Your task to perform on an android device: Go to location settings Image 0: 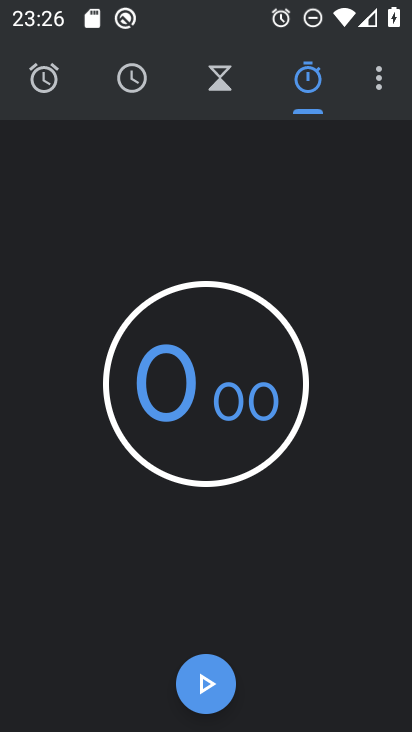
Step 0: press home button
Your task to perform on an android device: Go to location settings Image 1: 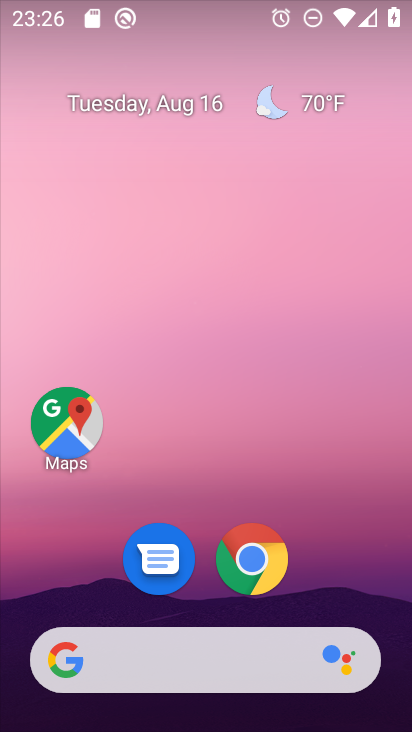
Step 1: drag from (161, 677) to (196, 83)
Your task to perform on an android device: Go to location settings Image 2: 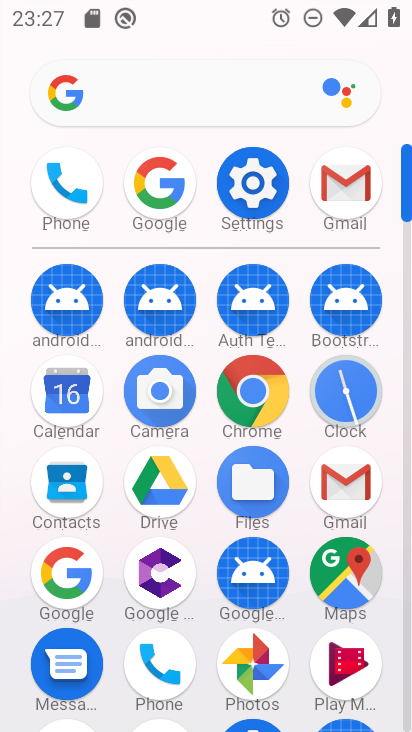
Step 2: click (252, 183)
Your task to perform on an android device: Go to location settings Image 3: 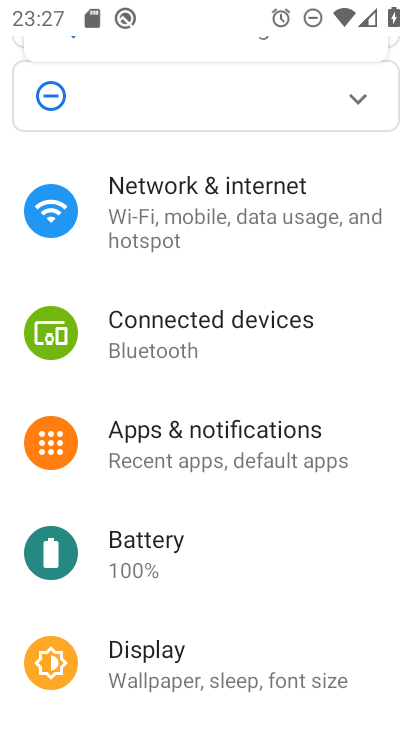
Step 3: drag from (176, 543) to (267, 424)
Your task to perform on an android device: Go to location settings Image 4: 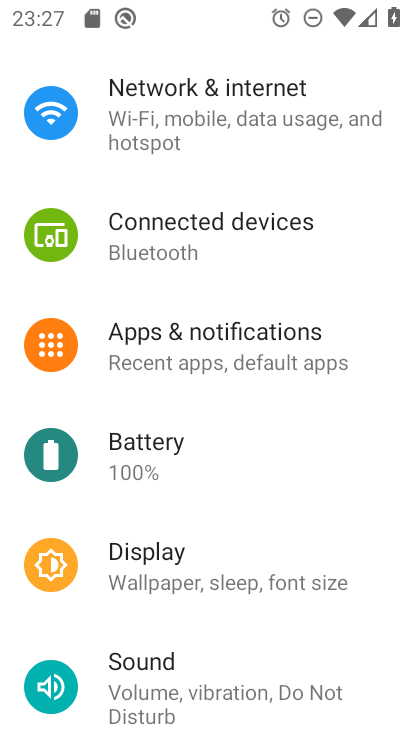
Step 4: drag from (245, 650) to (348, 516)
Your task to perform on an android device: Go to location settings Image 5: 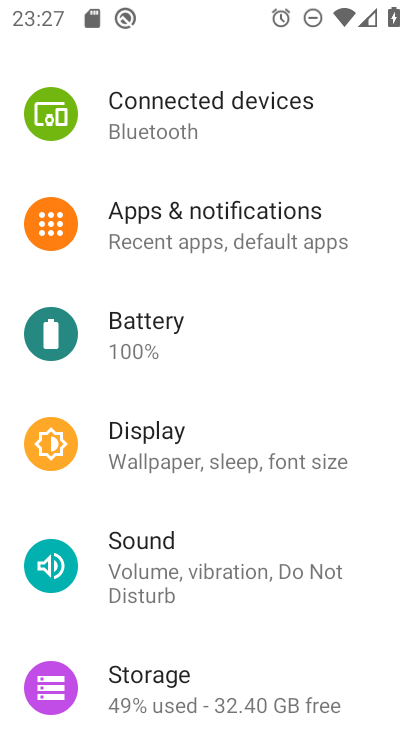
Step 5: drag from (237, 667) to (329, 523)
Your task to perform on an android device: Go to location settings Image 6: 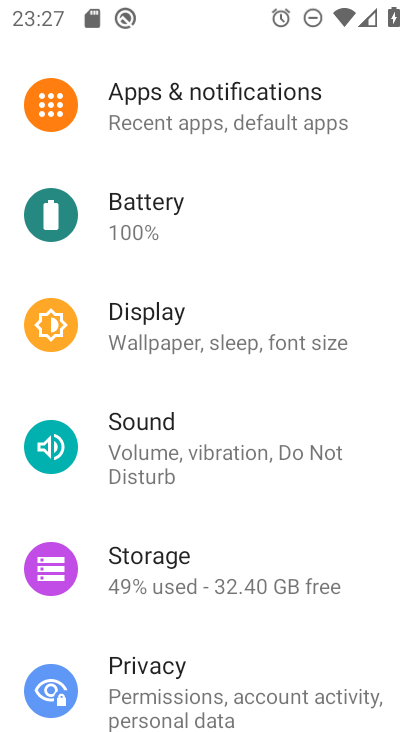
Step 6: drag from (235, 643) to (287, 516)
Your task to perform on an android device: Go to location settings Image 7: 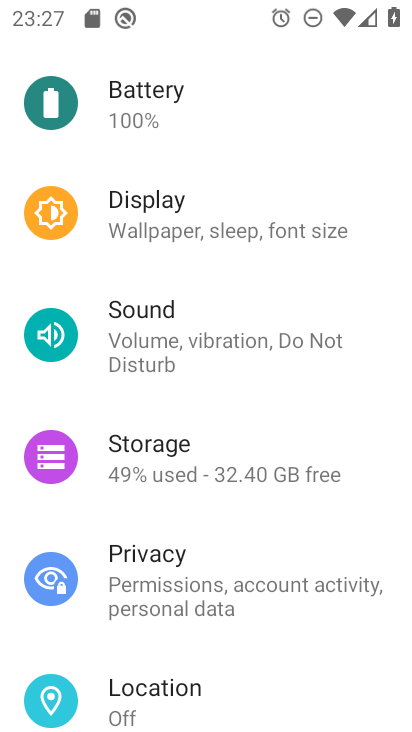
Step 7: drag from (240, 624) to (294, 471)
Your task to perform on an android device: Go to location settings Image 8: 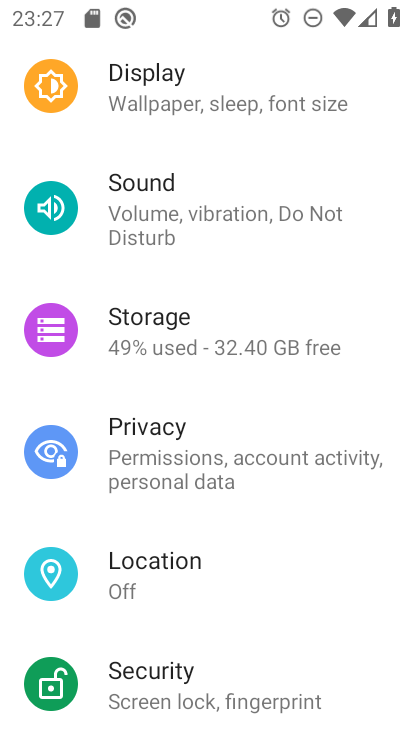
Step 8: click (185, 573)
Your task to perform on an android device: Go to location settings Image 9: 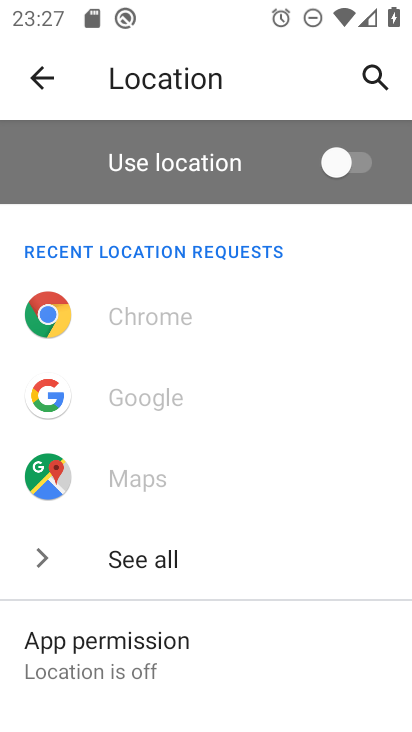
Step 9: task complete